Your task to perform on an android device: What's the weather? Image 0: 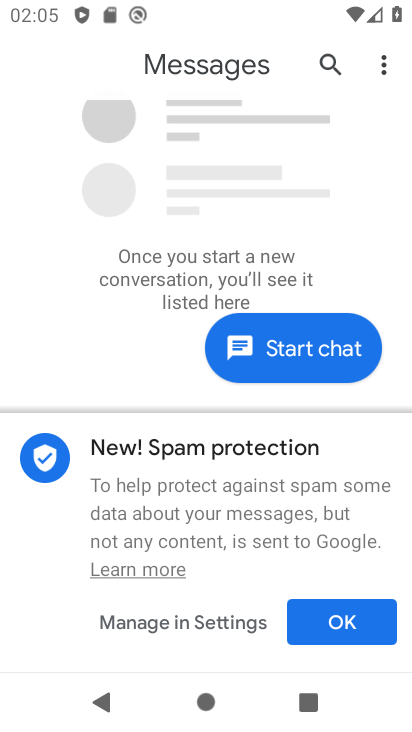
Step 0: press home button
Your task to perform on an android device: What's the weather? Image 1: 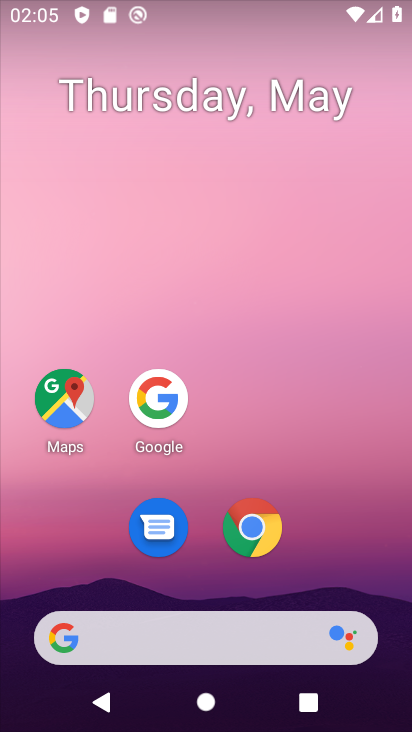
Step 1: drag from (206, 577) to (224, 71)
Your task to perform on an android device: What's the weather? Image 2: 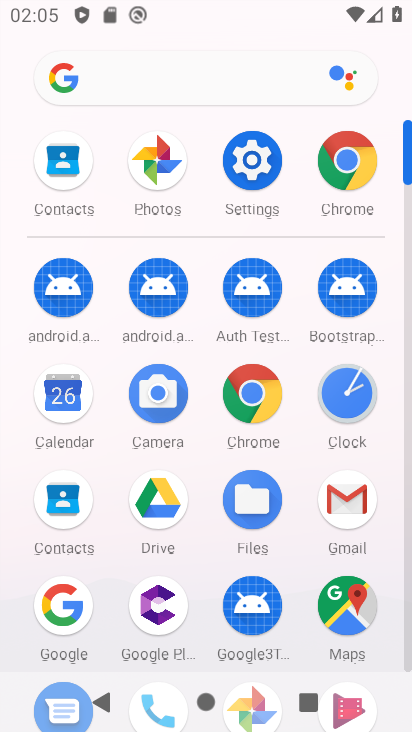
Step 2: click (147, 67)
Your task to perform on an android device: What's the weather? Image 3: 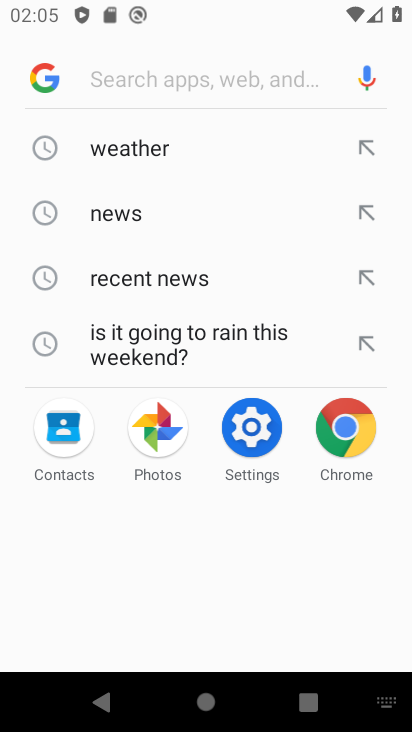
Step 3: click (134, 148)
Your task to perform on an android device: What's the weather? Image 4: 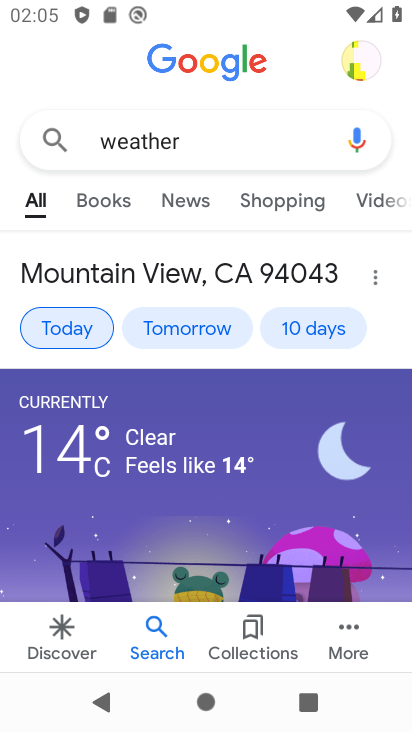
Step 4: task complete